Your task to perform on an android device: check data usage Image 0: 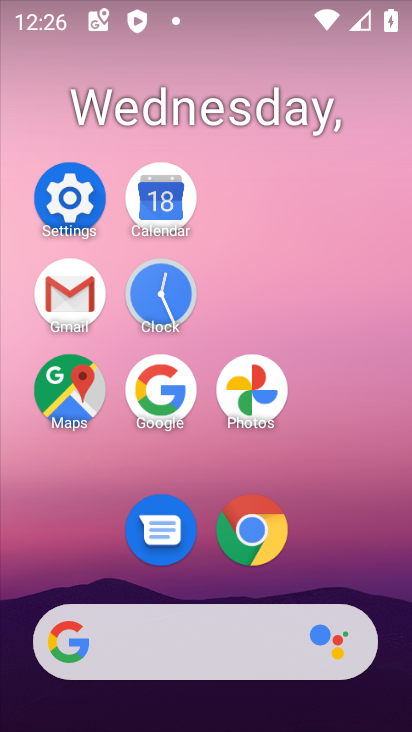
Step 0: click (69, 188)
Your task to perform on an android device: check data usage Image 1: 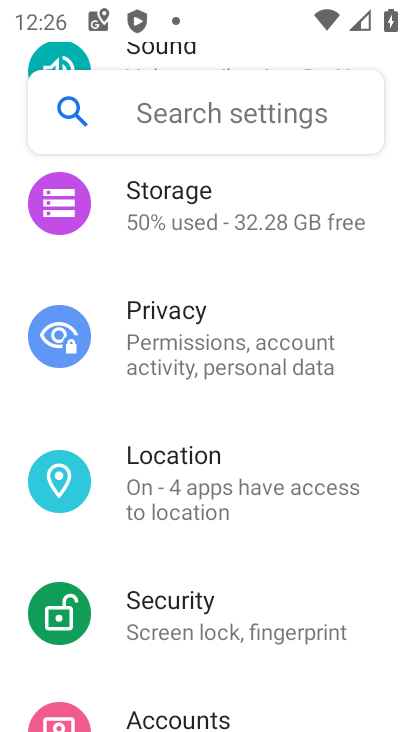
Step 1: drag from (167, 193) to (150, 538)
Your task to perform on an android device: check data usage Image 2: 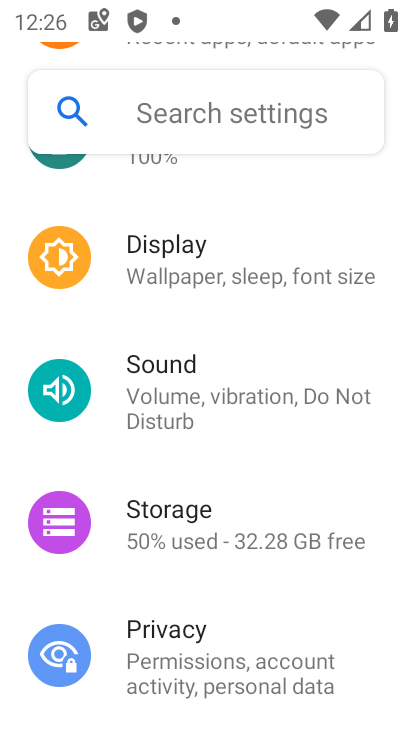
Step 2: drag from (268, 306) to (253, 551)
Your task to perform on an android device: check data usage Image 3: 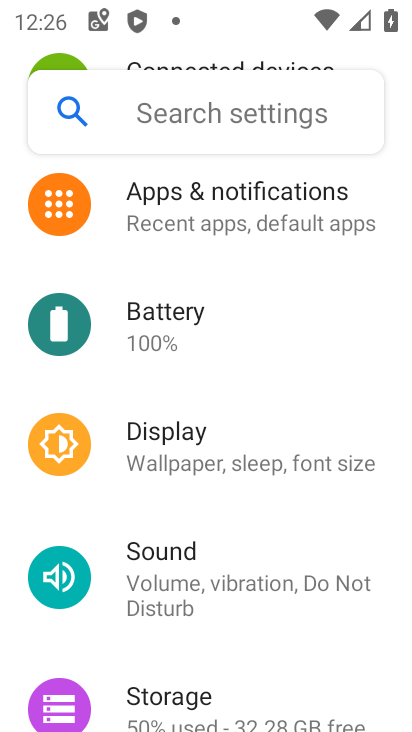
Step 3: drag from (254, 318) to (254, 617)
Your task to perform on an android device: check data usage Image 4: 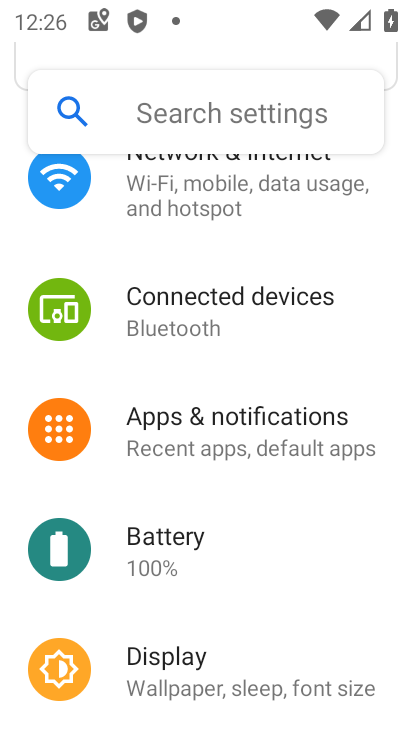
Step 4: click (209, 213)
Your task to perform on an android device: check data usage Image 5: 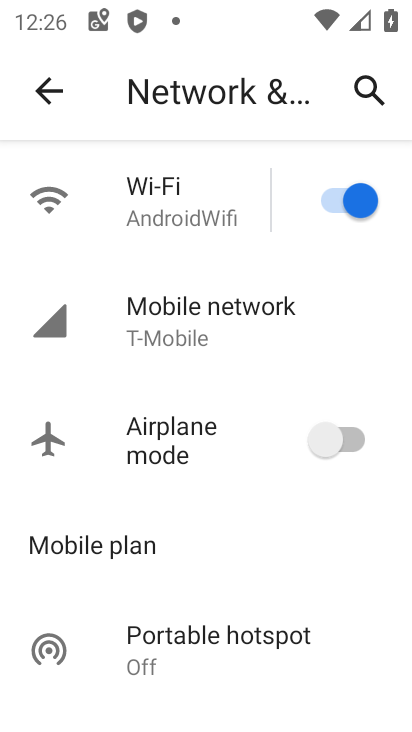
Step 5: click (195, 306)
Your task to perform on an android device: check data usage Image 6: 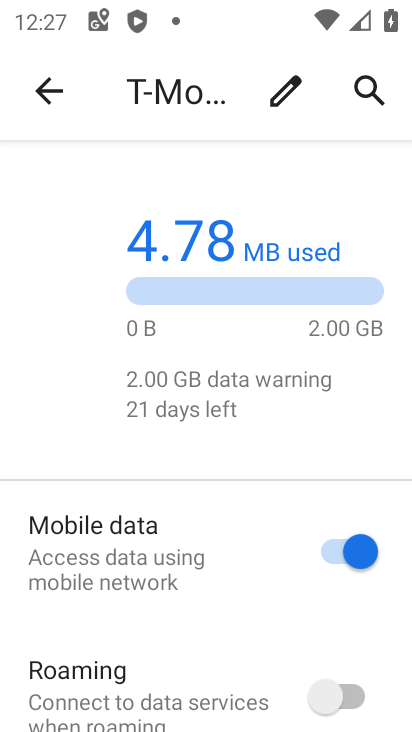
Step 6: task complete